Your task to perform on an android device: Open Wikipedia Image 0: 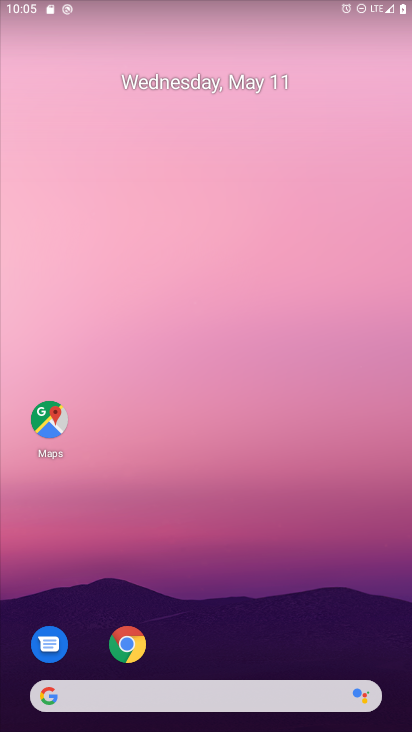
Step 0: click (127, 641)
Your task to perform on an android device: Open Wikipedia Image 1: 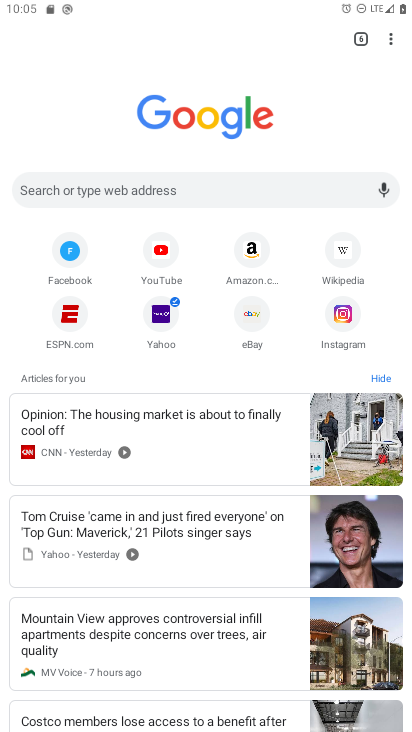
Step 1: click (333, 260)
Your task to perform on an android device: Open Wikipedia Image 2: 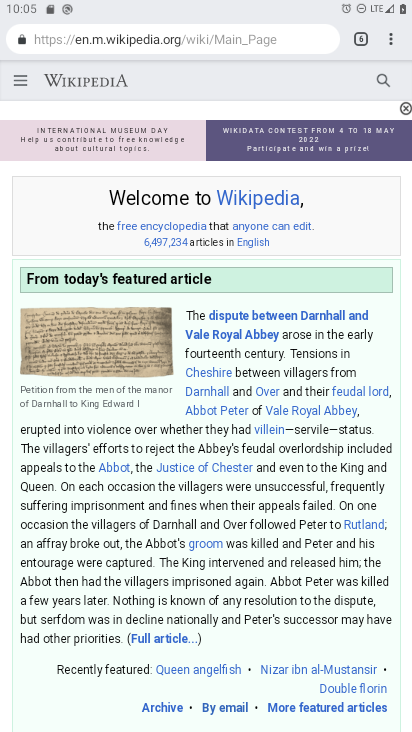
Step 2: task complete